Your task to perform on an android device: Go to settings Image 0: 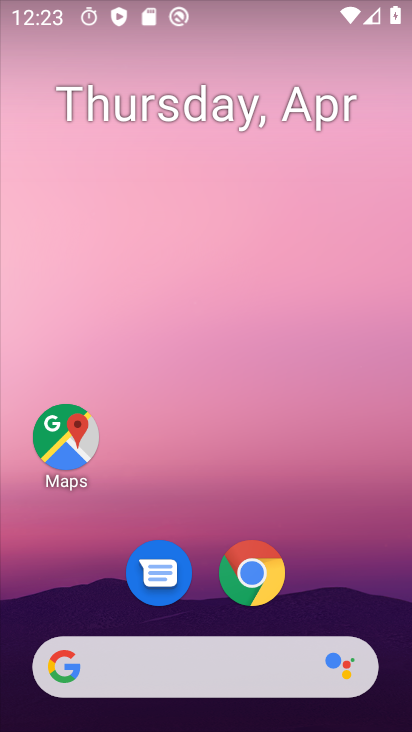
Step 0: click (339, 230)
Your task to perform on an android device: Go to settings Image 1: 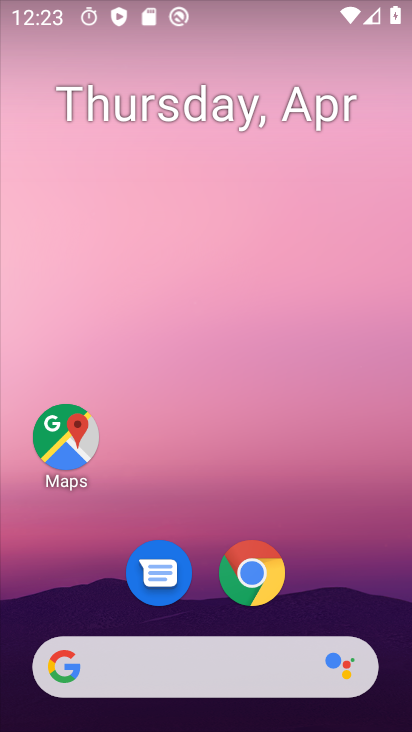
Step 1: drag from (378, 407) to (361, 235)
Your task to perform on an android device: Go to settings Image 2: 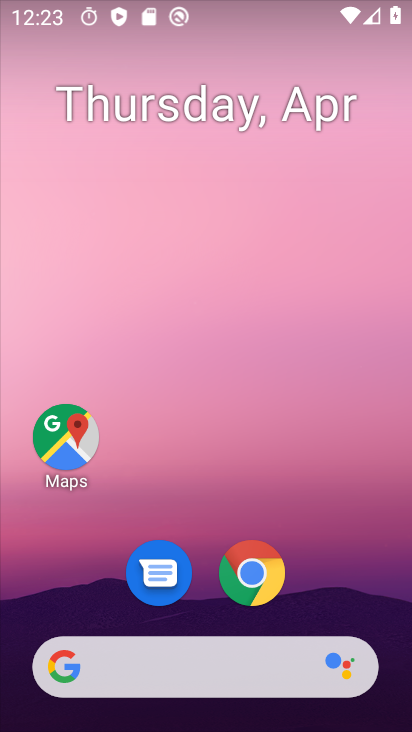
Step 2: drag from (384, 470) to (378, 195)
Your task to perform on an android device: Go to settings Image 3: 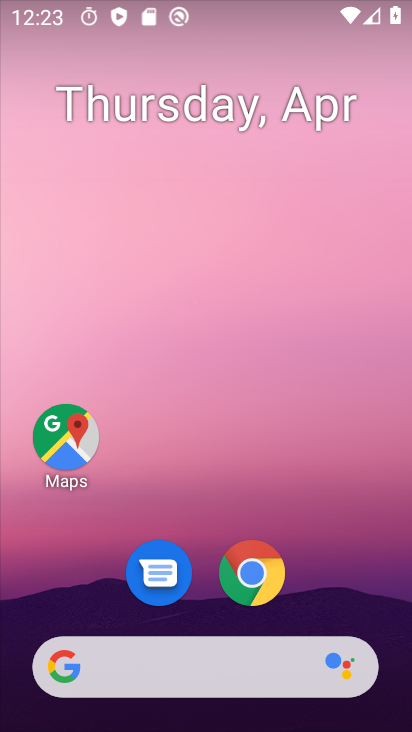
Step 3: drag from (354, 296) to (354, 239)
Your task to perform on an android device: Go to settings Image 4: 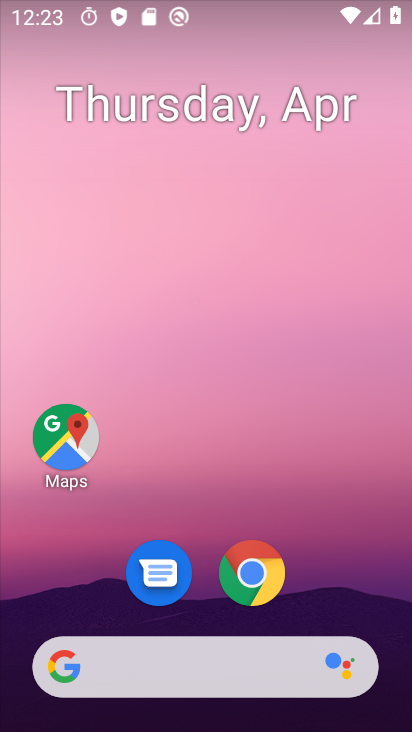
Step 4: drag from (355, 424) to (338, 256)
Your task to perform on an android device: Go to settings Image 5: 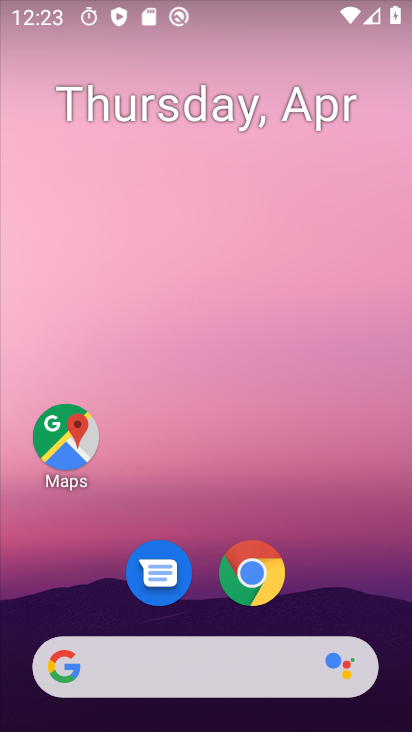
Step 5: drag from (377, 612) to (351, 231)
Your task to perform on an android device: Go to settings Image 6: 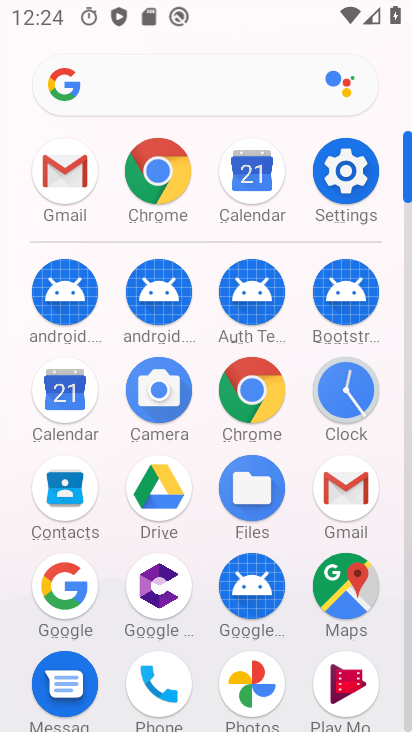
Step 6: drag from (405, 171) to (396, 72)
Your task to perform on an android device: Go to settings Image 7: 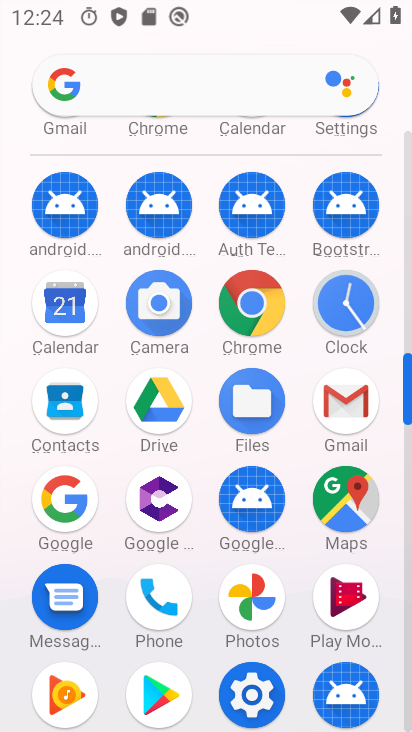
Step 7: click (404, 192)
Your task to perform on an android device: Go to settings Image 8: 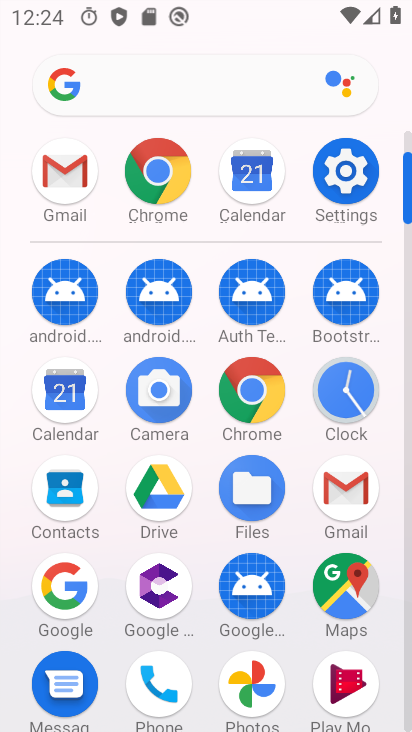
Step 8: click (330, 169)
Your task to perform on an android device: Go to settings Image 9: 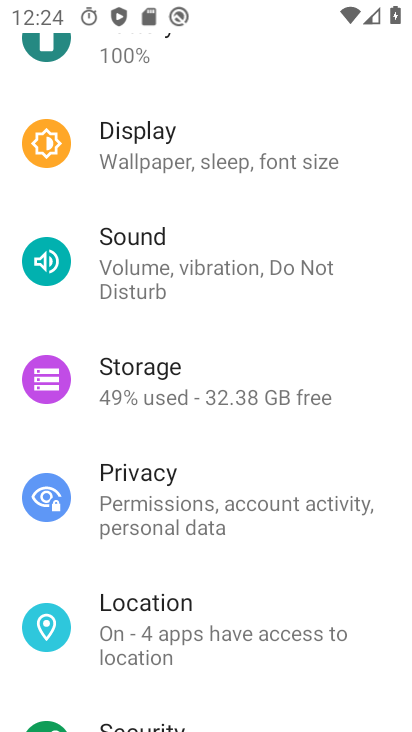
Step 9: task complete